Your task to perform on an android device: make emails show in primary in the gmail app Image 0: 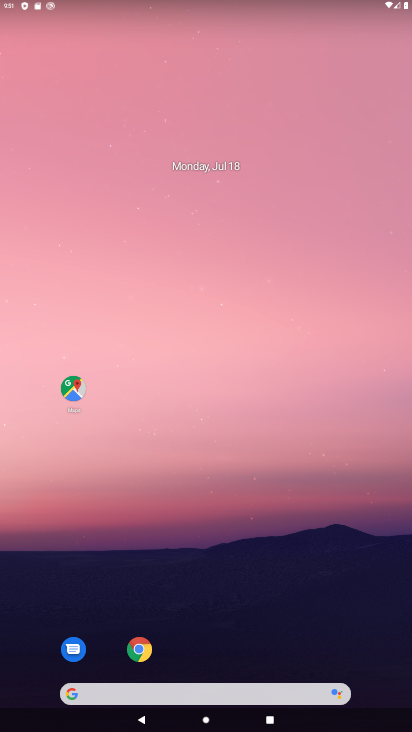
Step 0: drag from (10, 681) to (296, 113)
Your task to perform on an android device: make emails show in primary in the gmail app Image 1: 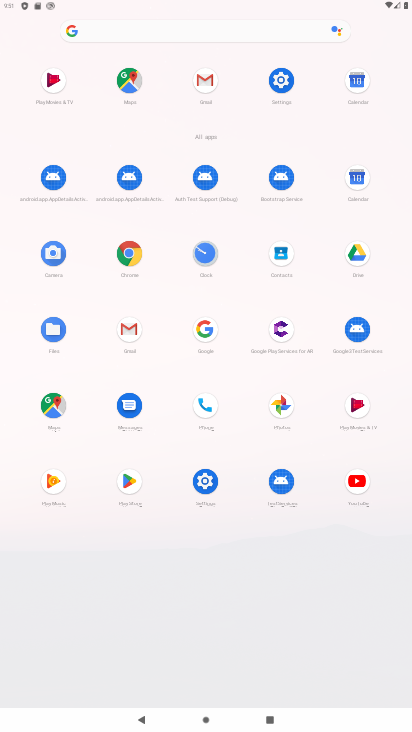
Step 1: click (216, 89)
Your task to perform on an android device: make emails show in primary in the gmail app Image 2: 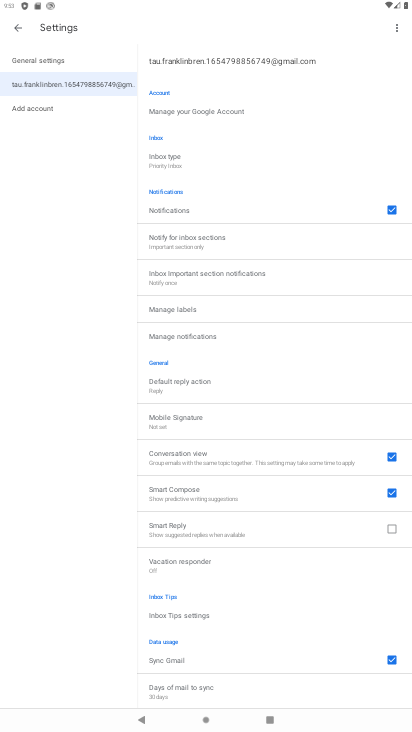
Step 2: task complete